Your task to perform on an android device: turn notification dots on Image 0: 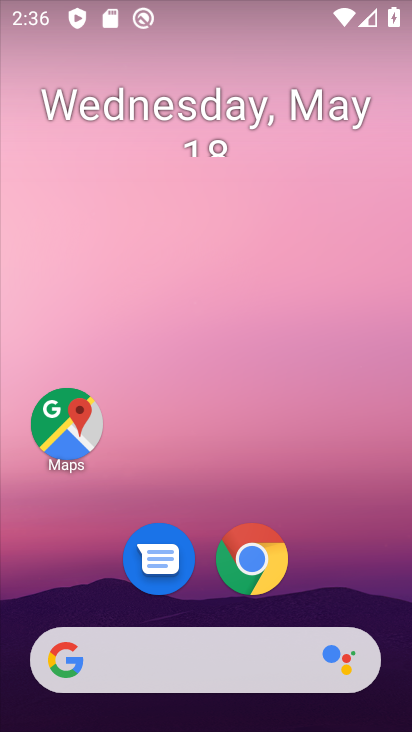
Step 0: drag from (195, 591) to (239, 79)
Your task to perform on an android device: turn notification dots on Image 1: 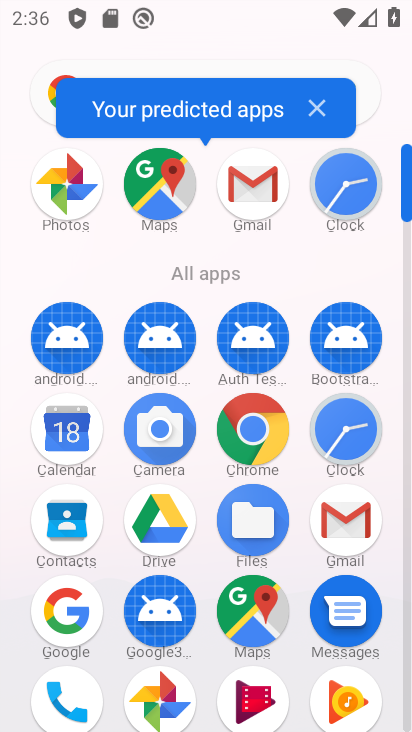
Step 1: drag from (168, 596) to (236, 100)
Your task to perform on an android device: turn notification dots on Image 2: 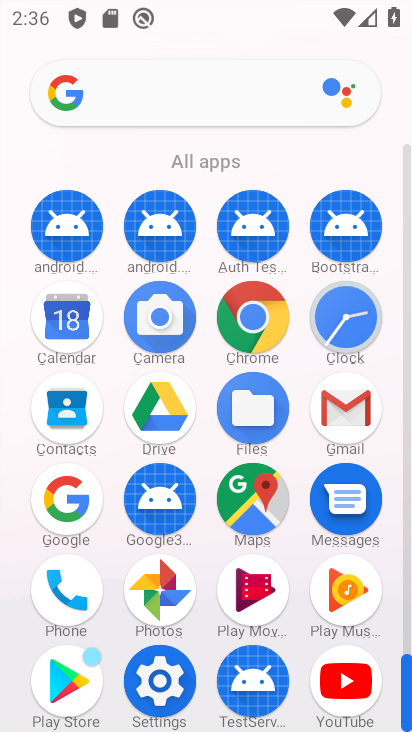
Step 2: click (158, 670)
Your task to perform on an android device: turn notification dots on Image 3: 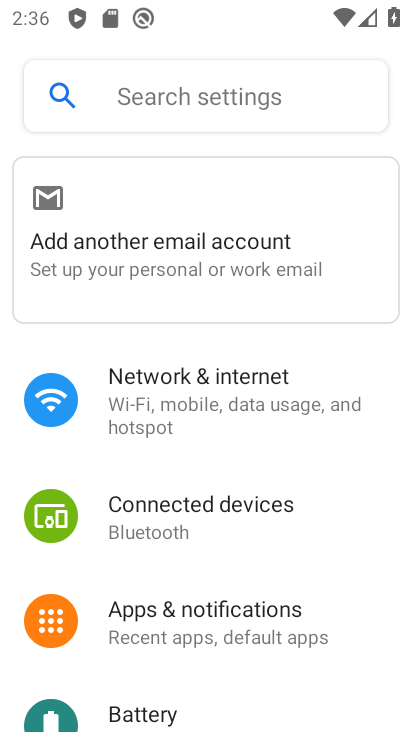
Step 3: click (216, 633)
Your task to perform on an android device: turn notification dots on Image 4: 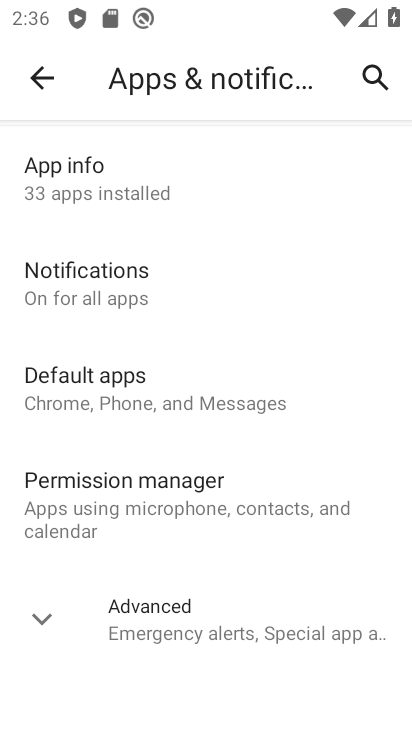
Step 4: click (96, 287)
Your task to perform on an android device: turn notification dots on Image 5: 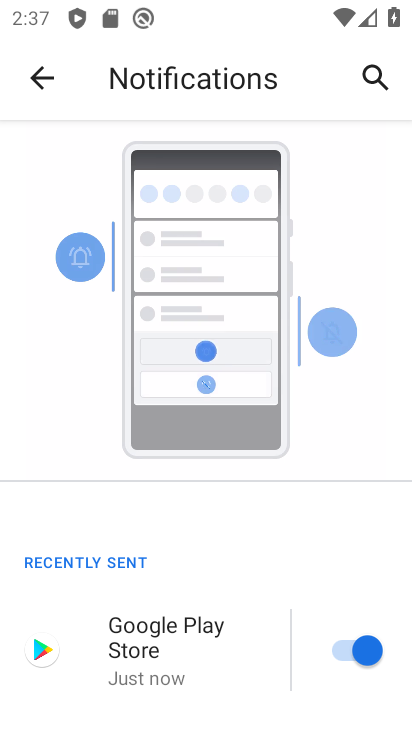
Step 5: drag from (168, 683) to (233, 144)
Your task to perform on an android device: turn notification dots on Image 6: 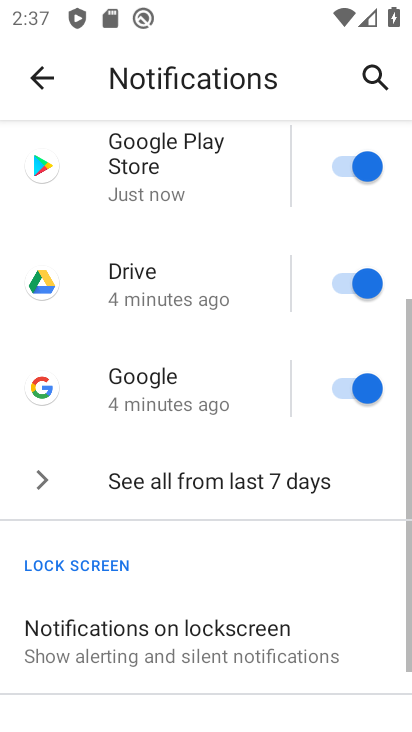
Step 6: drag from (172, 667) to (186, 153)
Your task to perform on an android device: turn notification dots on Image 7: 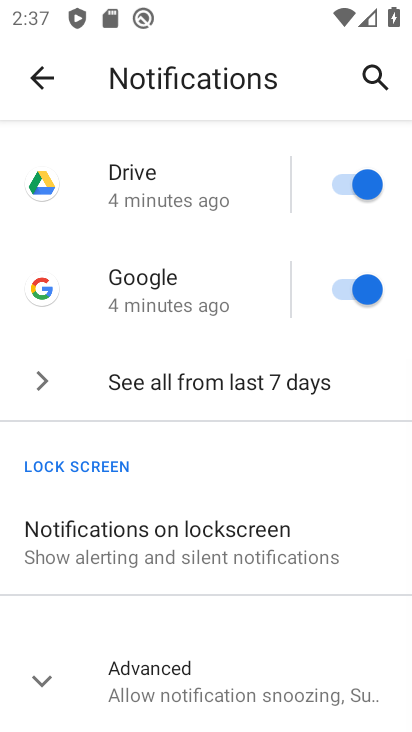
Step 7: click (175, 662)
Your task to perform on an android device: turn notification dots on Image 8: 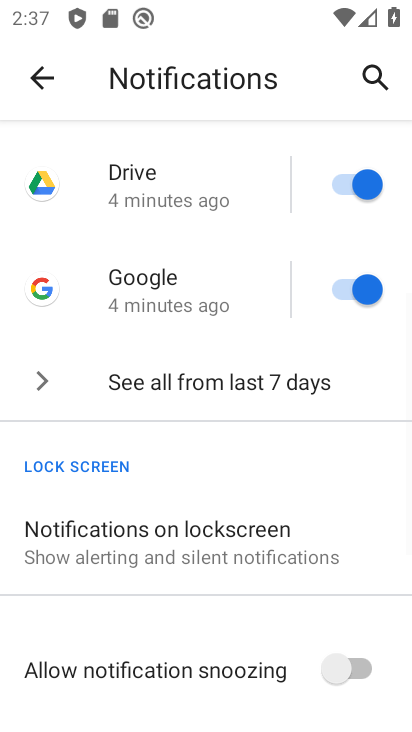
Step 8: task complete